Your task to perform on an android device: turn on the 12-hour format for clock Image 0: 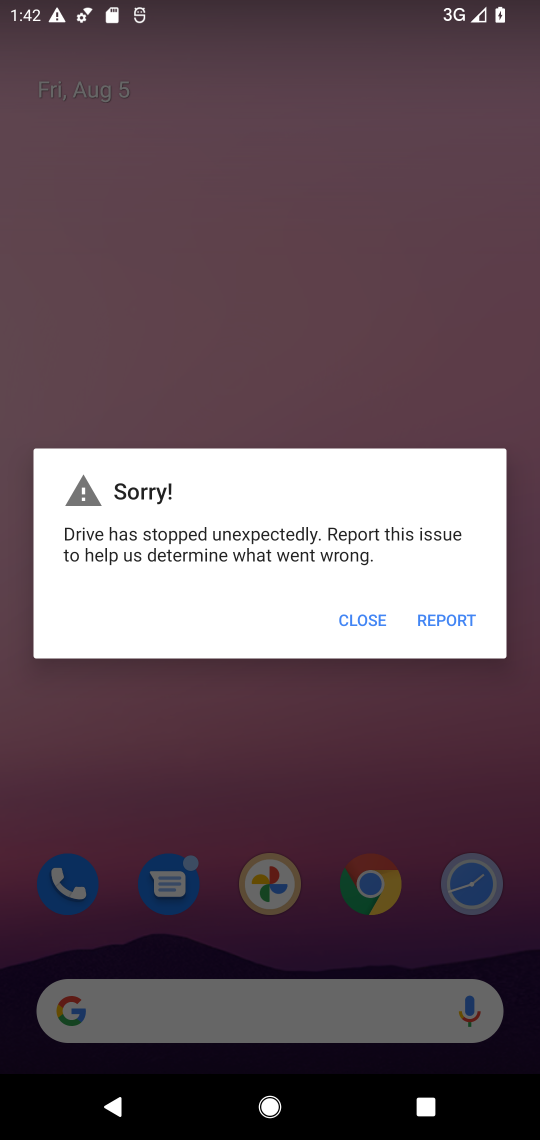
Step 0: click (376, 625)
Your task to perform on an android device: turn on the 12-hour format for clock Image 1: 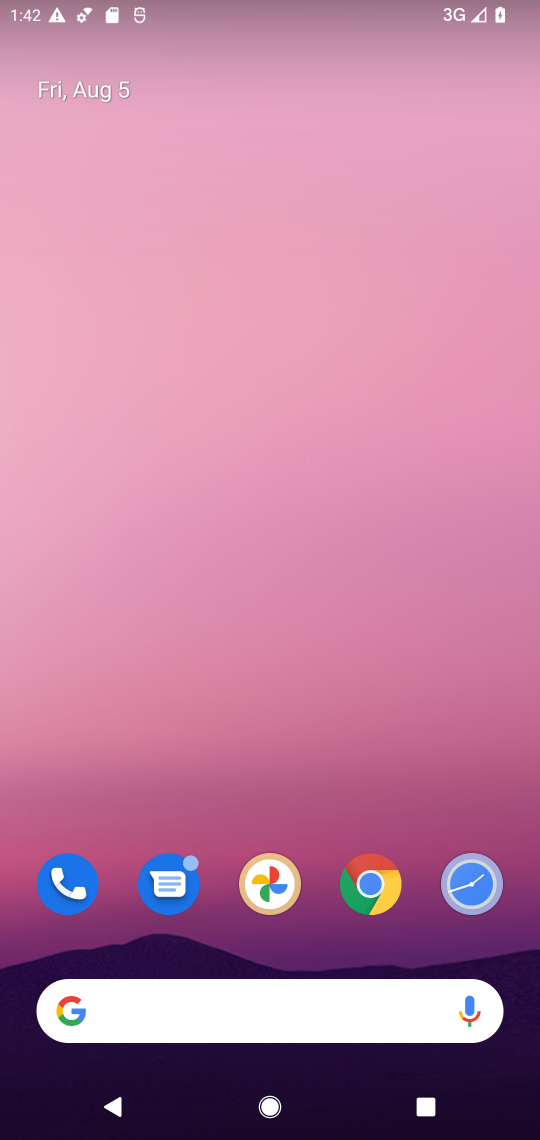
Step 1: drag from (519, 913) to (391, 36)
Your task to perform on an android device: turn on the 12-hour format for clock Image 2: 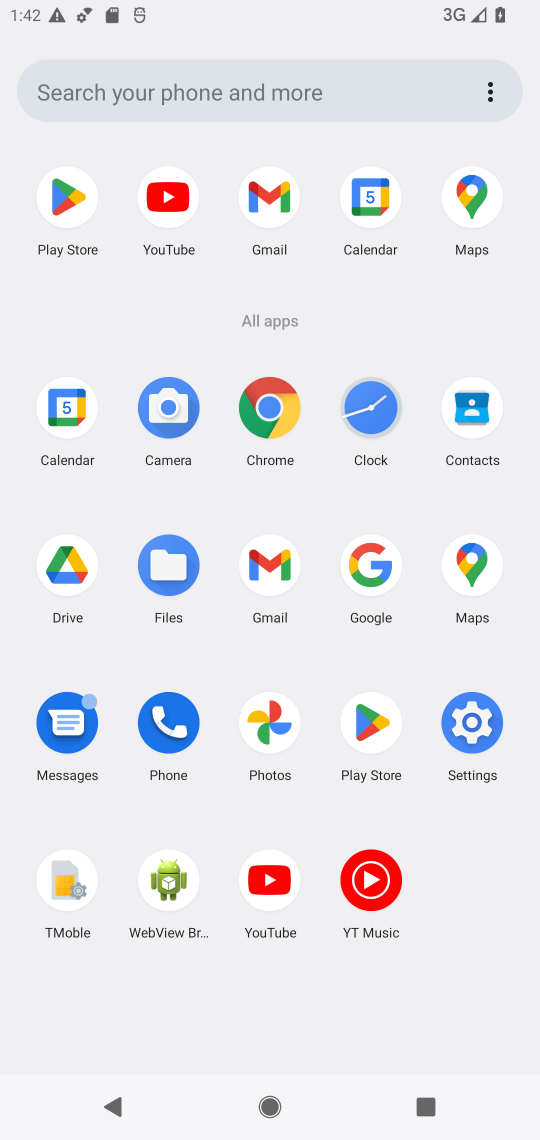
Step 2: click (362, 405)
Your task to perform on an android device: turn on the 12-hour format for clock Image 3: 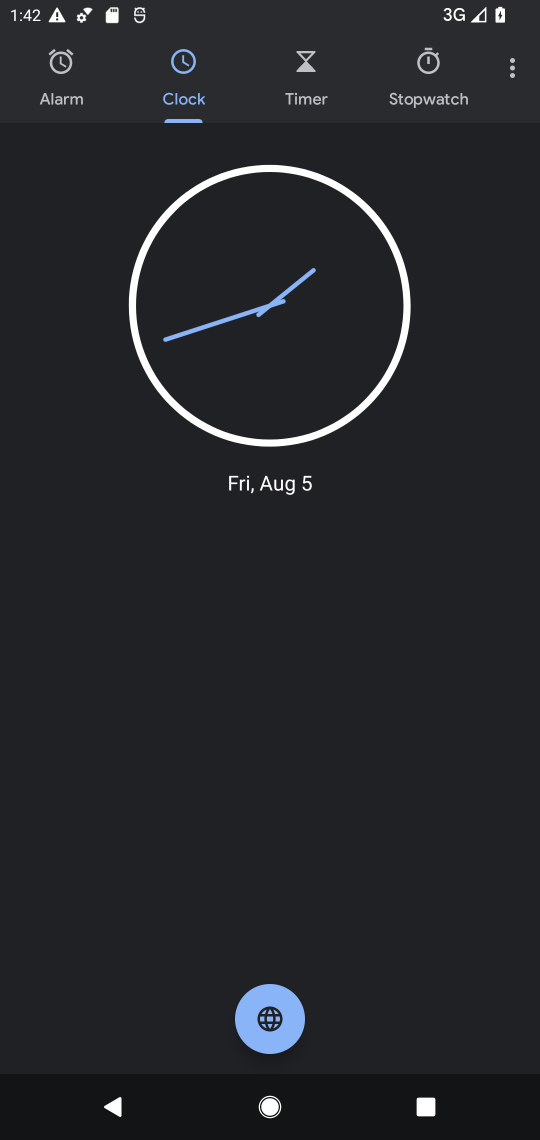
Step 3: click (512, 77)
Your task to perform on an android device: turn on the 12-hour format for clock Image 4: 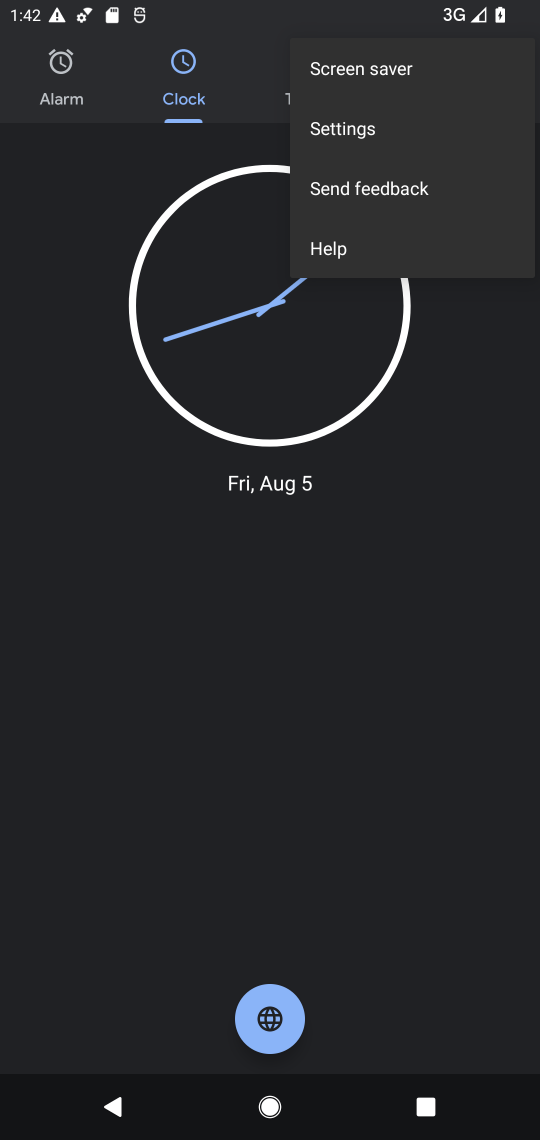
Step 4: click (349, 141)
Your task to perform on an android device: turn on the 12-hour format for clock Image 5: 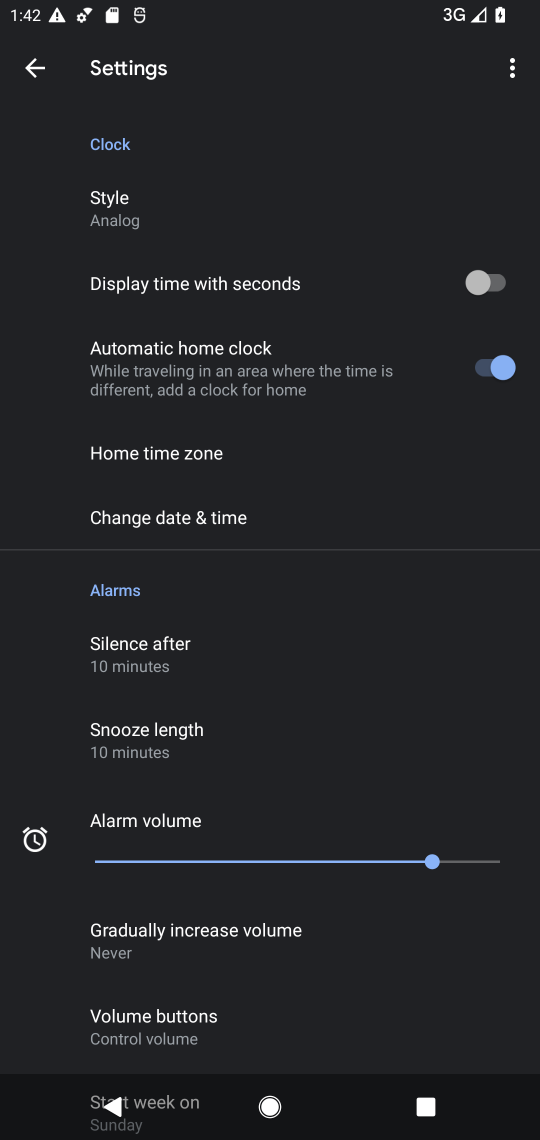
Step 5: click (227, 502)
Your task to perform on an android device: turn on the 12-hour format for clock Image 6: 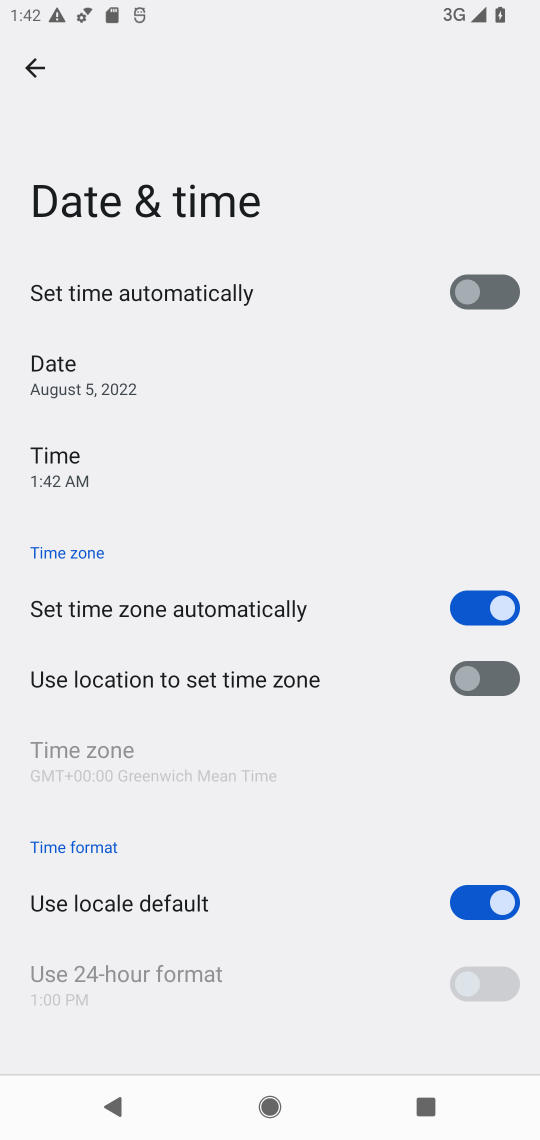
Step 6: click (494, 1024)
Your task to perform on an android device: turn on the 12-hour format for clock Image 7: 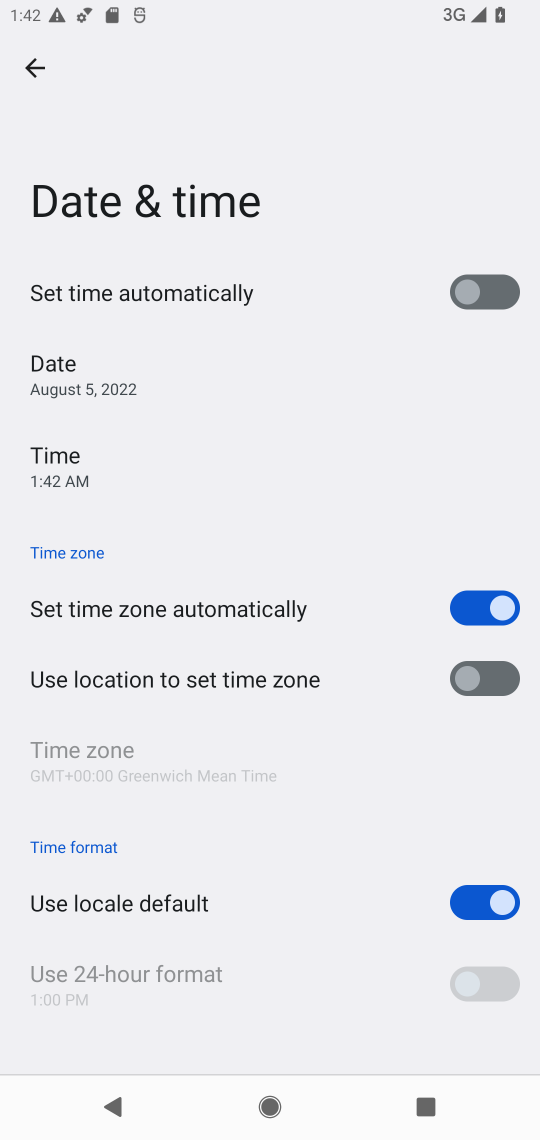
Step 7: task complete